Your task to perform on an android device: Open calendar and show me the second week of next month Image 0: 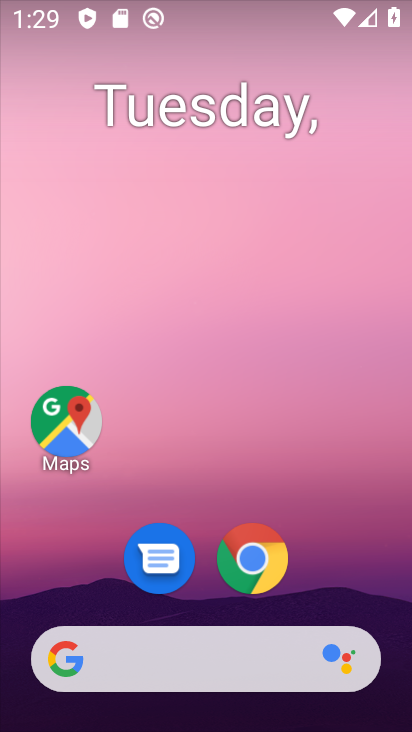
Step 0: drag from (211, 597) to (356, 49)
Your task to perform on an android device: Open calendar and show me the second week of next month Image 1: 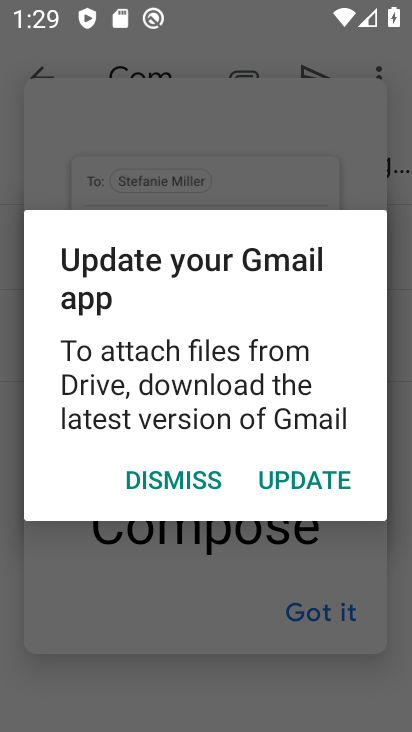
Step 1: click (171, 483)
Your task to perform on an android device: Open calendar and show me the second week of next month Image 2: 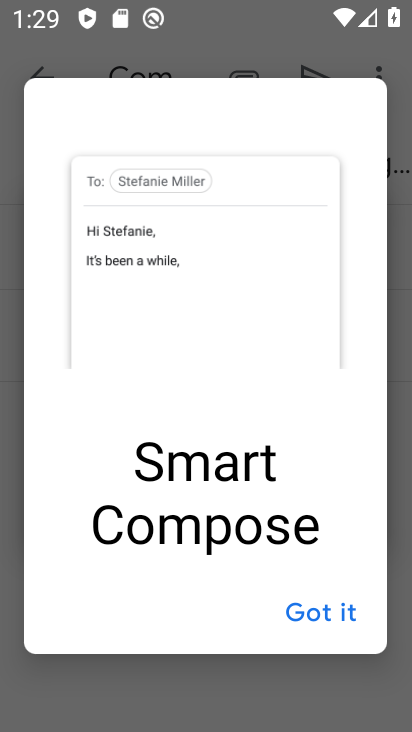
Step 2: click (298, 596)
Your task to perform on an android device: Open calendar and show me the second week of next month Image 3: 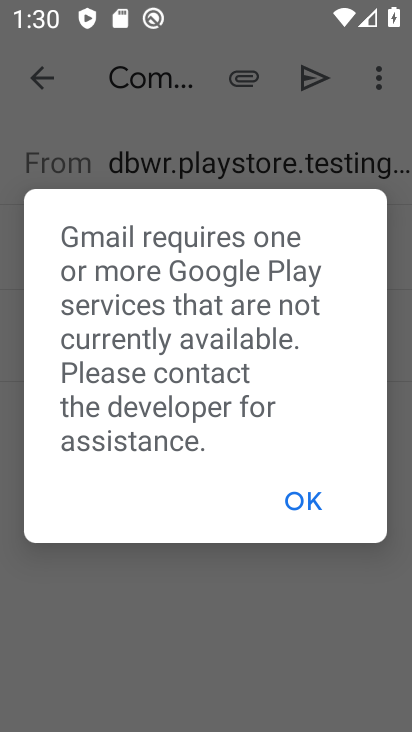
Step 3: click (326, 493)
Your task to perform on an android device: Open calendar and show me the second week of next month Image 4: 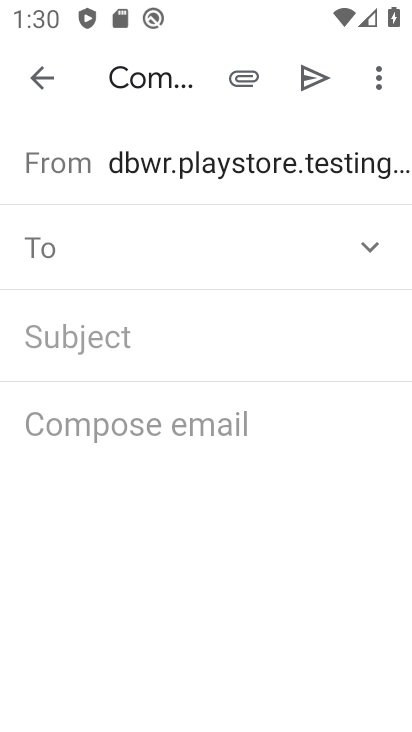
Step 4: press back button
Your task to perform on an android device: Open calendar and show me the second week of next month Image 5: 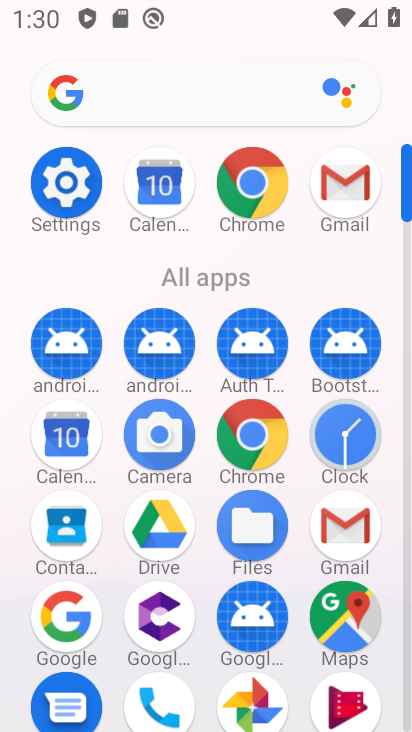
Step 5: click (73, 435)
Your task to perform on an android device: Open calendar and show me the second week of next month Image 6: 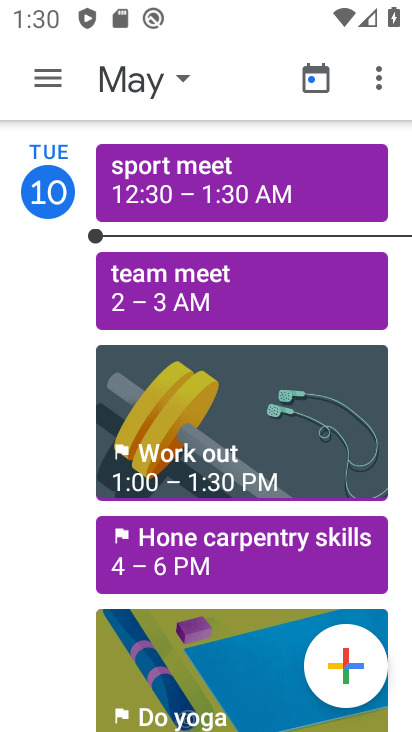
Step 6: click (183, 70)
Your task to perform on an android device: Open calendar and show me the second week of next month Image 7: 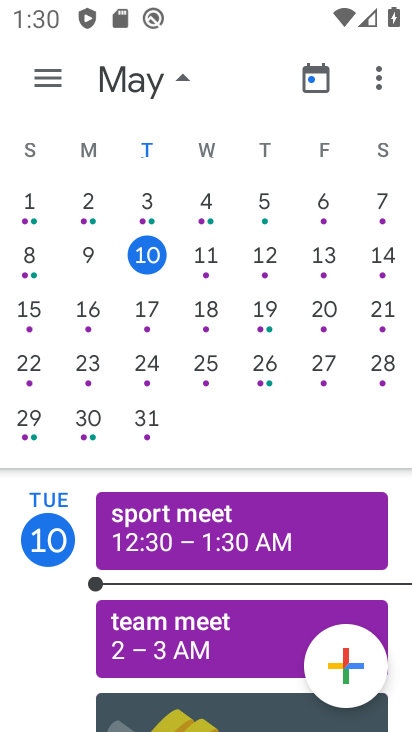
Step 7: drag from (385, 303) to (2, 314)
Your task to perform on an android device: Open calendar and show me the second week of next month Image 8: 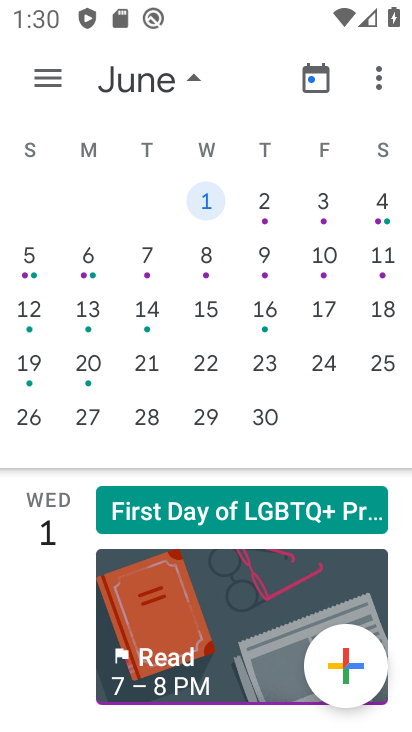
Step 8: click (92, 255)
Your task to perform on an android device: Open calendar and show me the second week of next month Image 9: 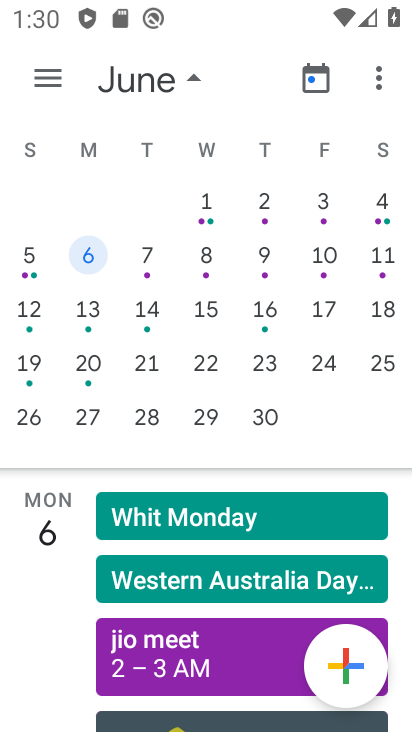
Step 9: task complete